Your task to perform on an android device: see sites visited before in the chrome app Image 0: 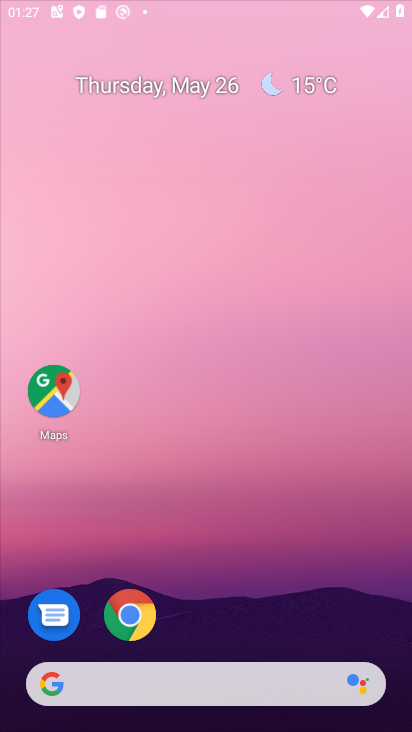
Step 0: drag from (234, 477) to (298, 47)
Your task to perform on an android device: see sites visited before in the chrome app Image 1: 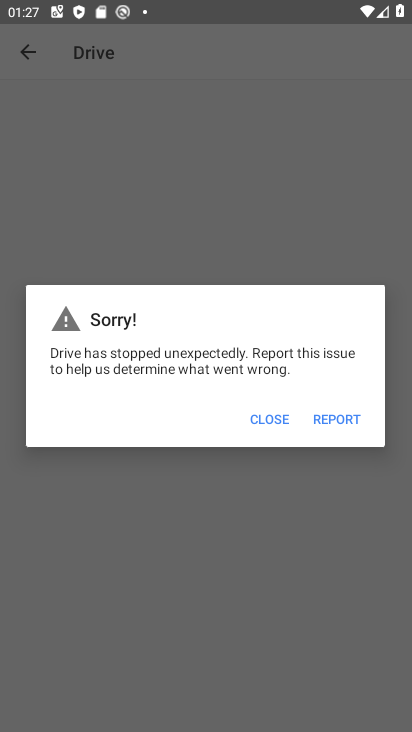
Step 1: press home button
Your task to perform on an android device: see sites visited before in the chrome app Image 2: 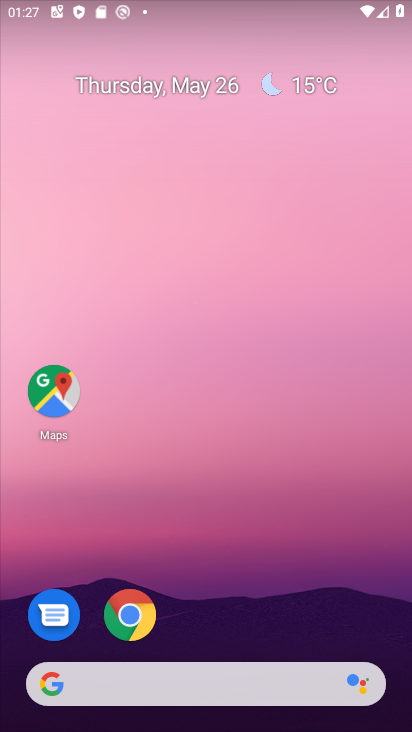
Step 2: drag from (237, 612) to (313, 53)
Your task to perform on an android device: see sites visited before in the chrome app Image 3: 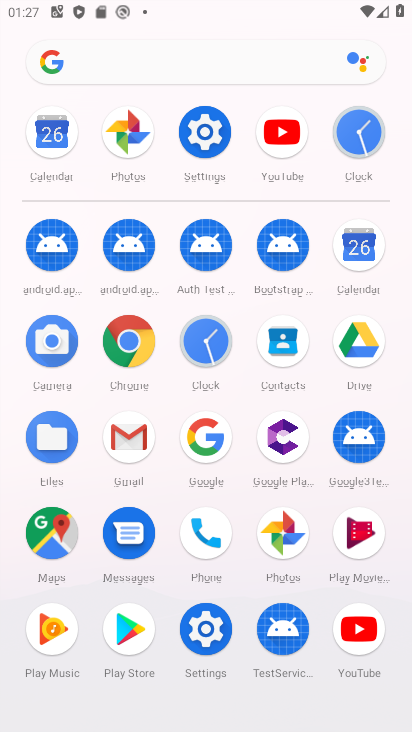
Step 3: click (126, 343)
Your task to perform on an android device: see sites visited before in the chrome app Image 4: 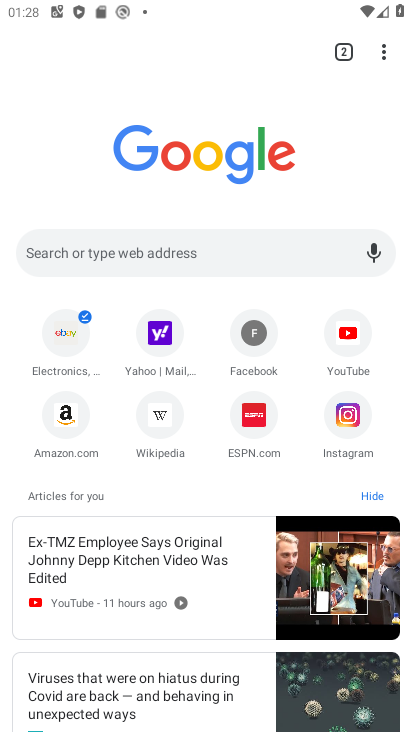
Step 4: task complete